Your task to perform on an android device: check google app version Image 0: 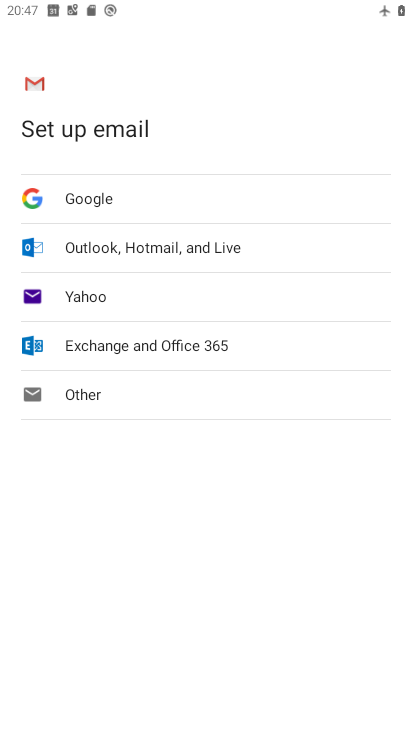
Step 0: press home button
Your task to perform on an android device: check google app version Image 1: 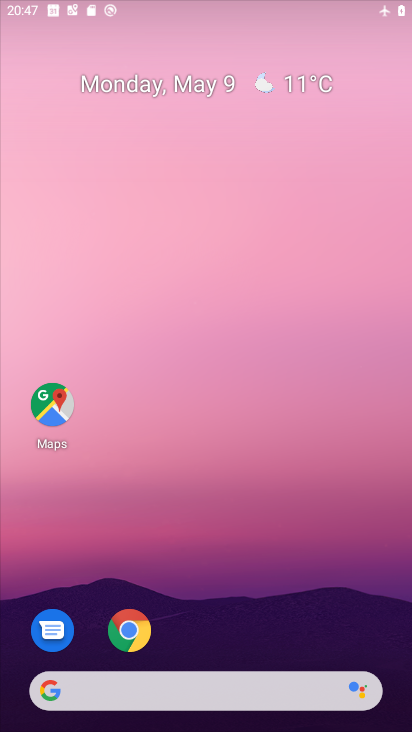
Step 1: drag from (153, 532) to (248, 84)
Your task to perform on an android device: check google app version Image 2: 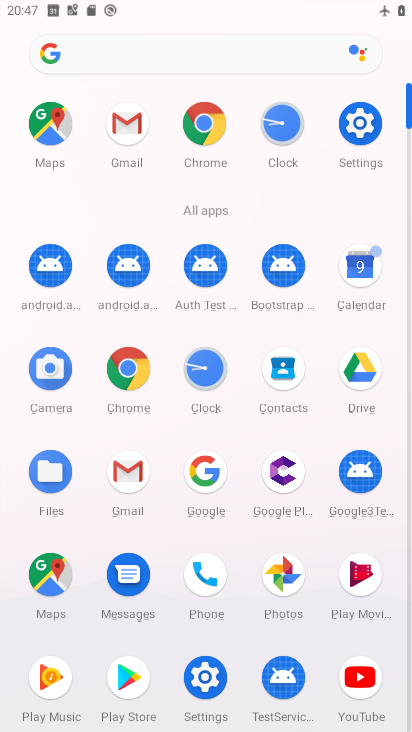
Step 2: click (219, 471)
Your task to perform on an android device: check google app version Image 3: 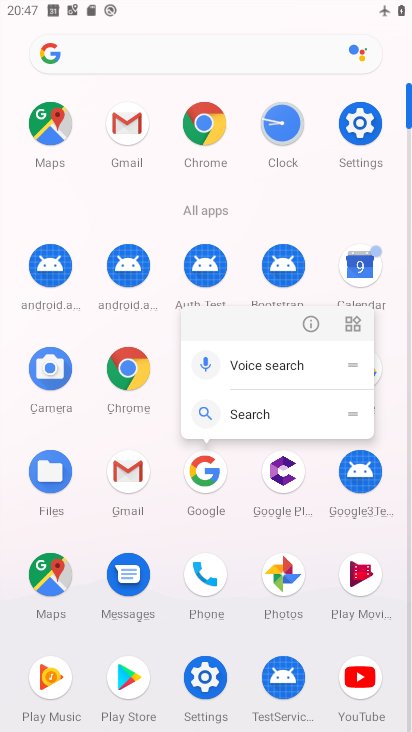
Step 3: click (218, 481)
Your task to perform on an android device: check google app version Image 4: 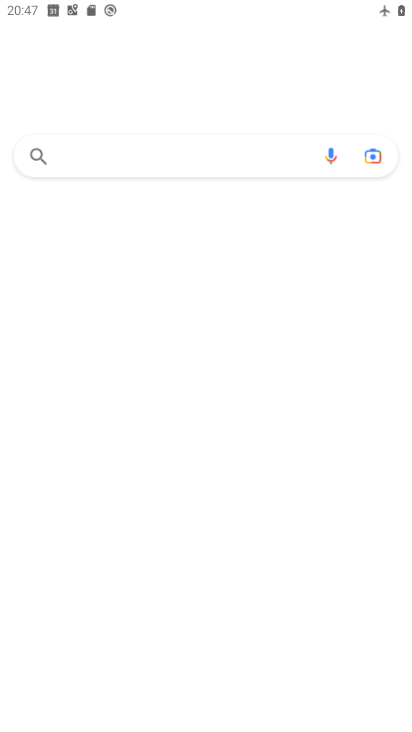
Step 4: drag from (201, 486) to (246, 425)
Your task to perform on an android device: check google app version Image 5: 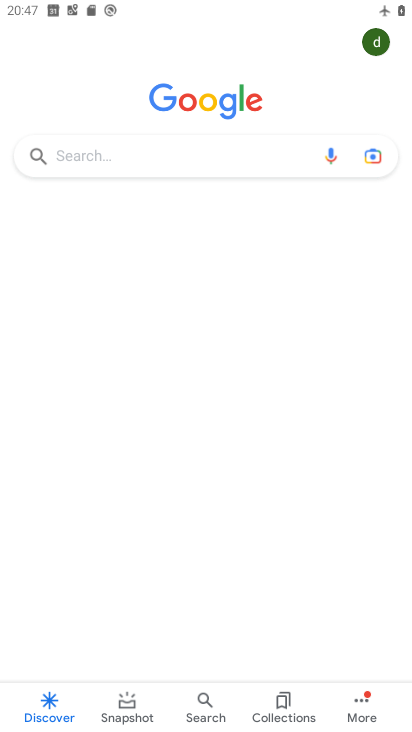
Step 5: click (376, 50)
Your task to perform on an android device: check google app version Image 6: 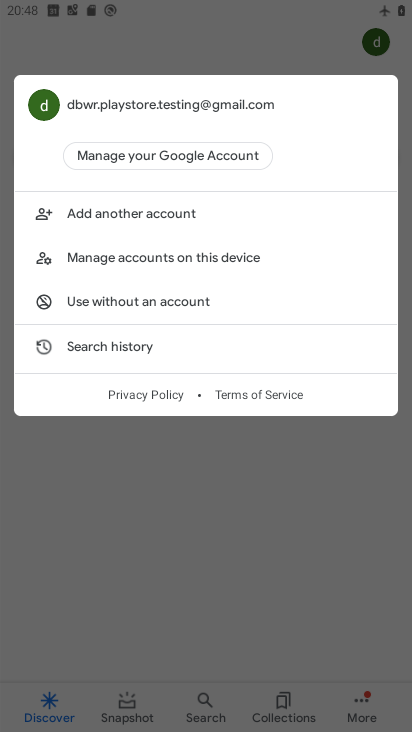
Step 6: click (362, 707)
Your task to perform on an android device: check google app version Image 7: 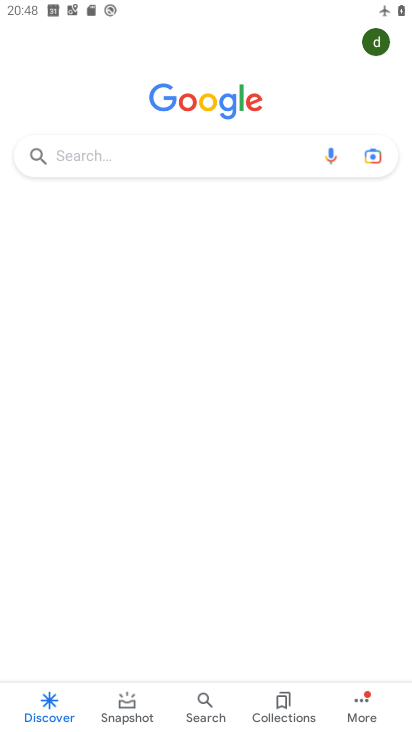
Step 7: click (362, 706)
Your task to perform on an android device: check google app version Image 8: 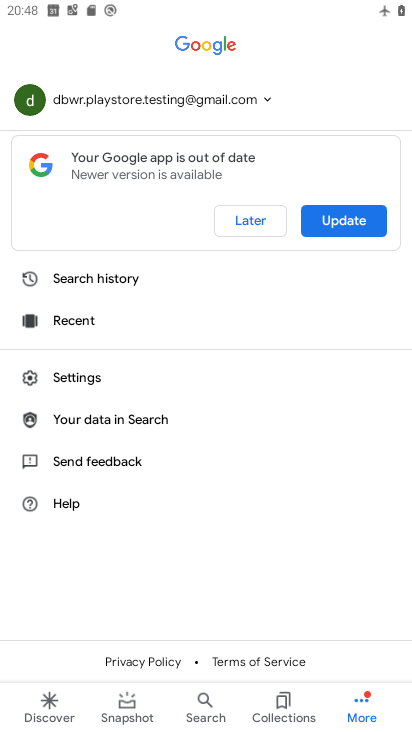
Step 8: click (83, 383)
Your task to perform on an android device: check google app version Image 9: 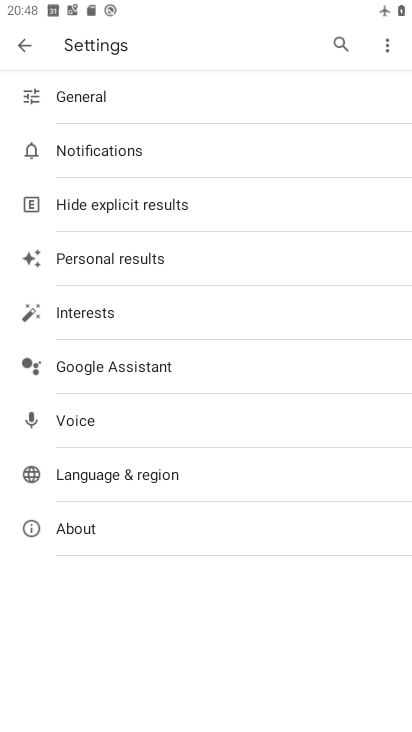
Step 9: click (150, 520)
Your task to perform on an android device: check google app version Image 10: 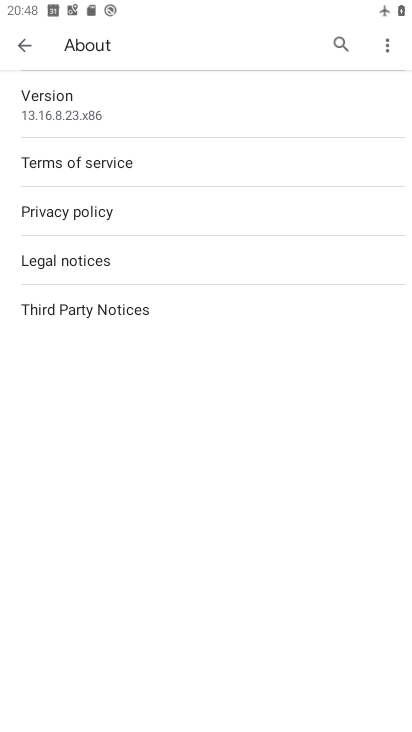
Step 10: task complete